Your task to perform on an android device: Search for "alienware aurora" on walmart, select the first entry, add it to the cart, then select checkout. Image 0: 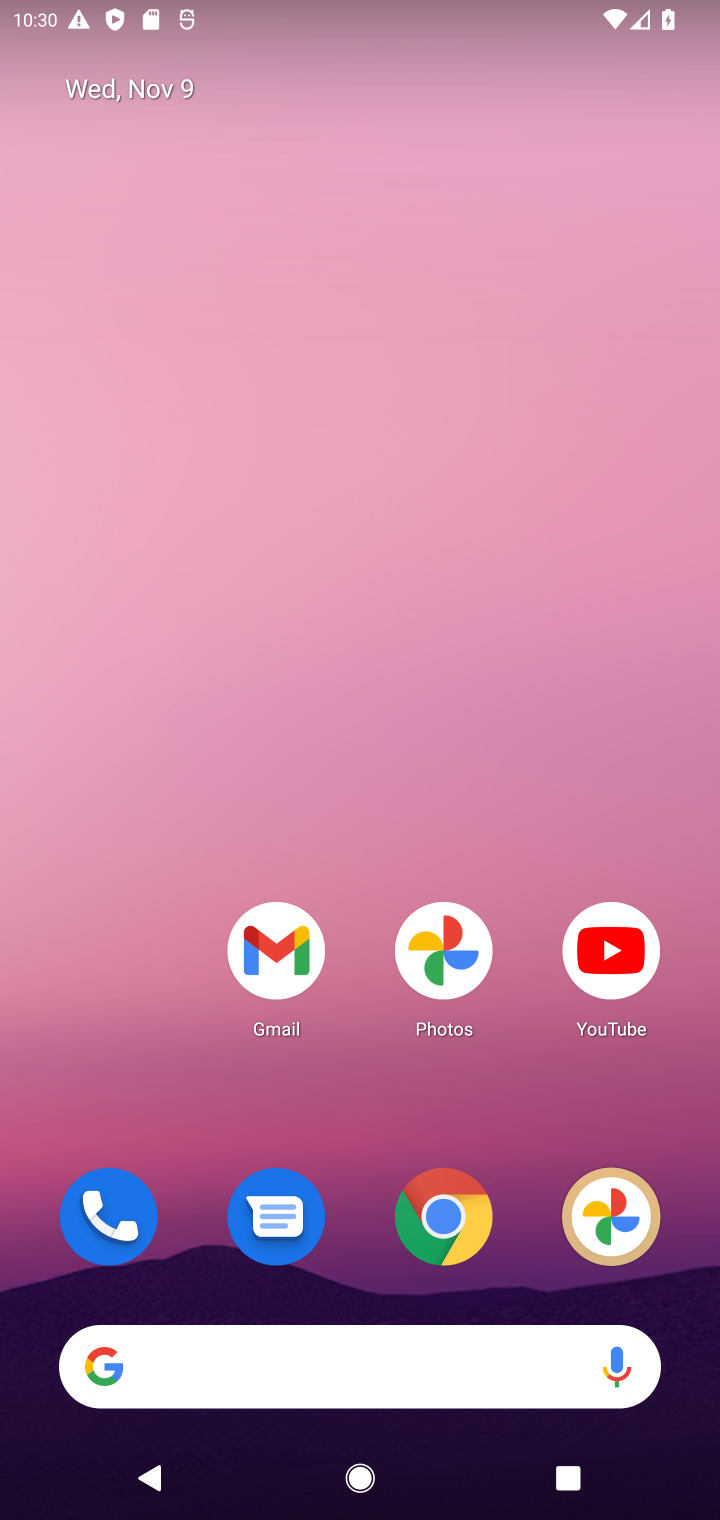
Step 0: drag from (374, 1056) to (505, 84)
Your task to perform on an android device: Search for "alienware aurora" on walmart, select the first entry, add it to the cart, then select checkout. Image 1: 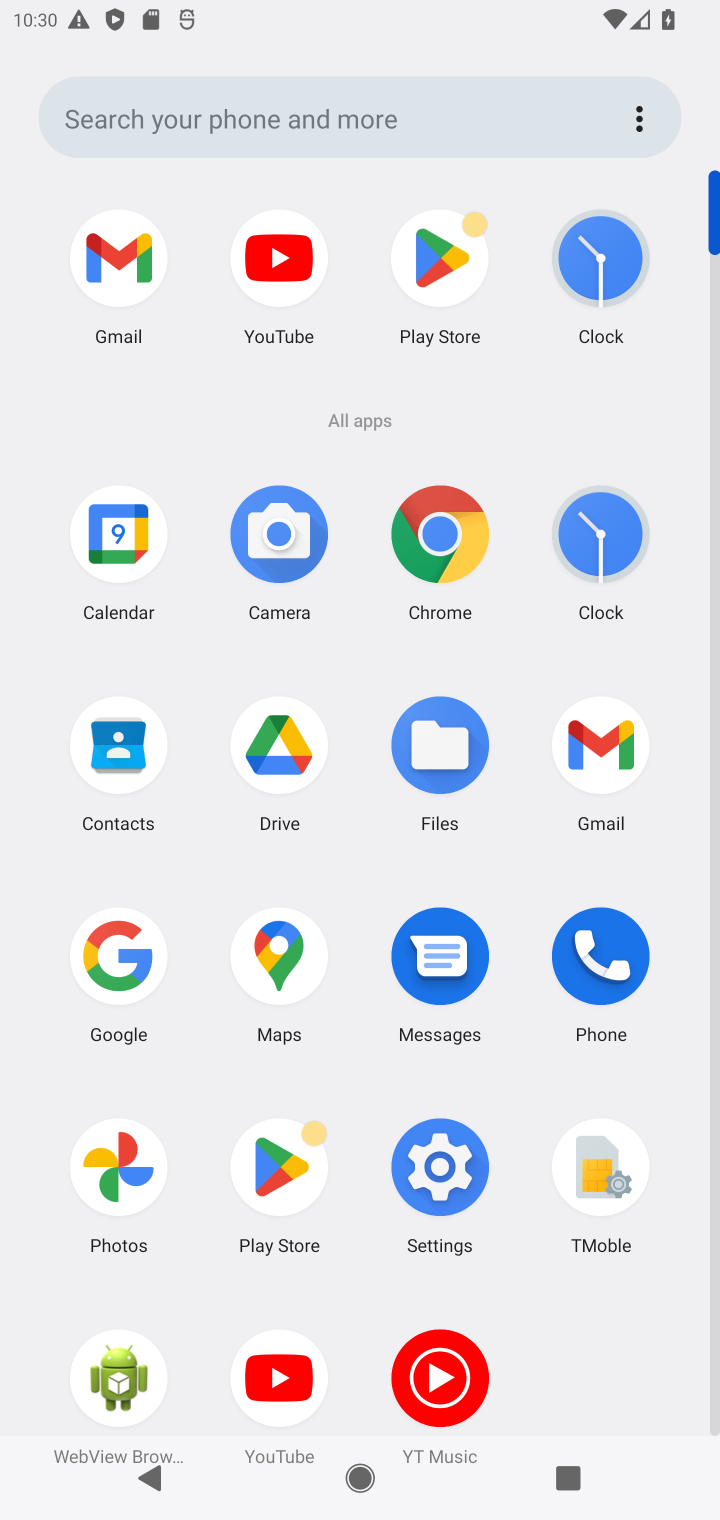
Step 1: click (449, 540)
Your task to perform on an android device: Search for "alienware aurora" on walmart, select the first entry, add it to the cart, then select checkout. Image 2: 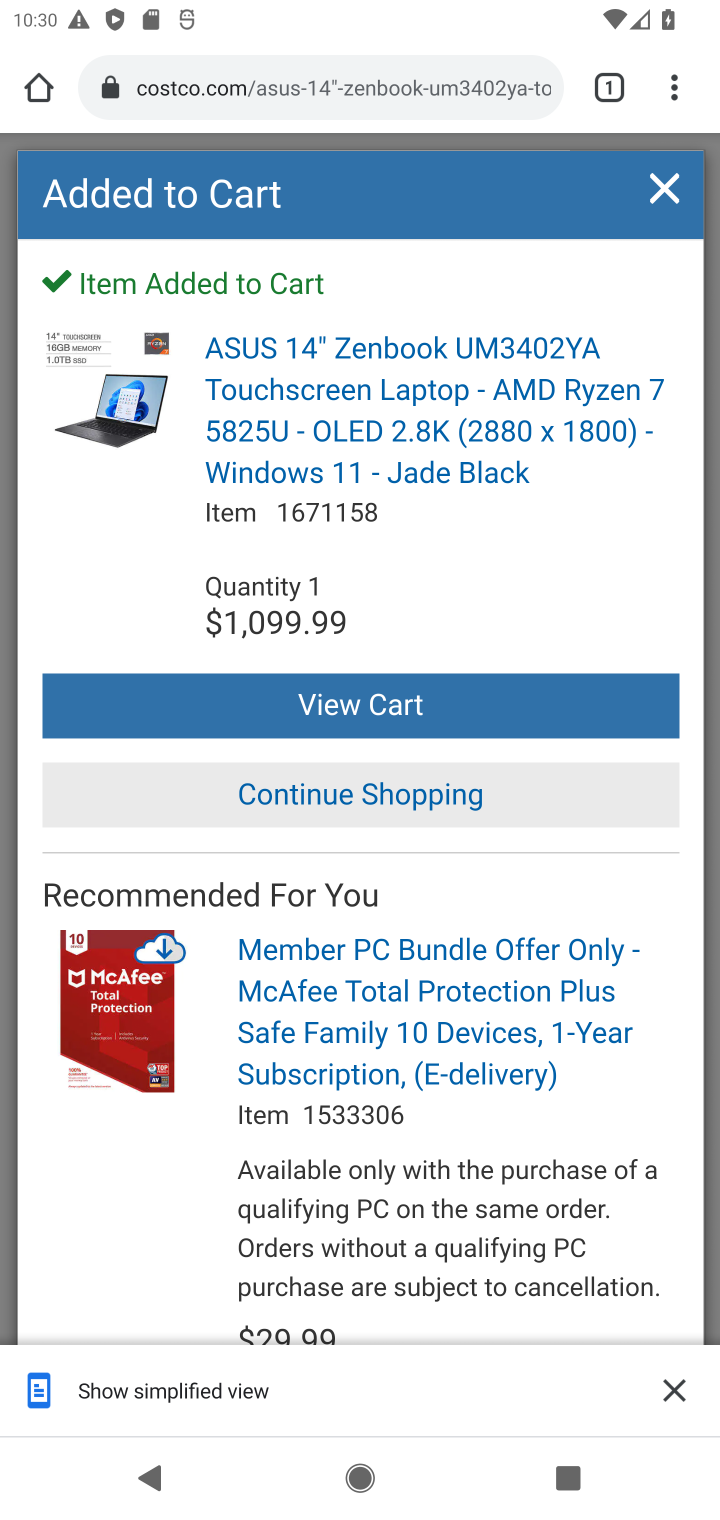
Step 2: click (281, 79)
Your task to perform on an android device: Search for "alienware aurora" on walmart, select the first entry, add it to the cart, then select checkout. Image 3: 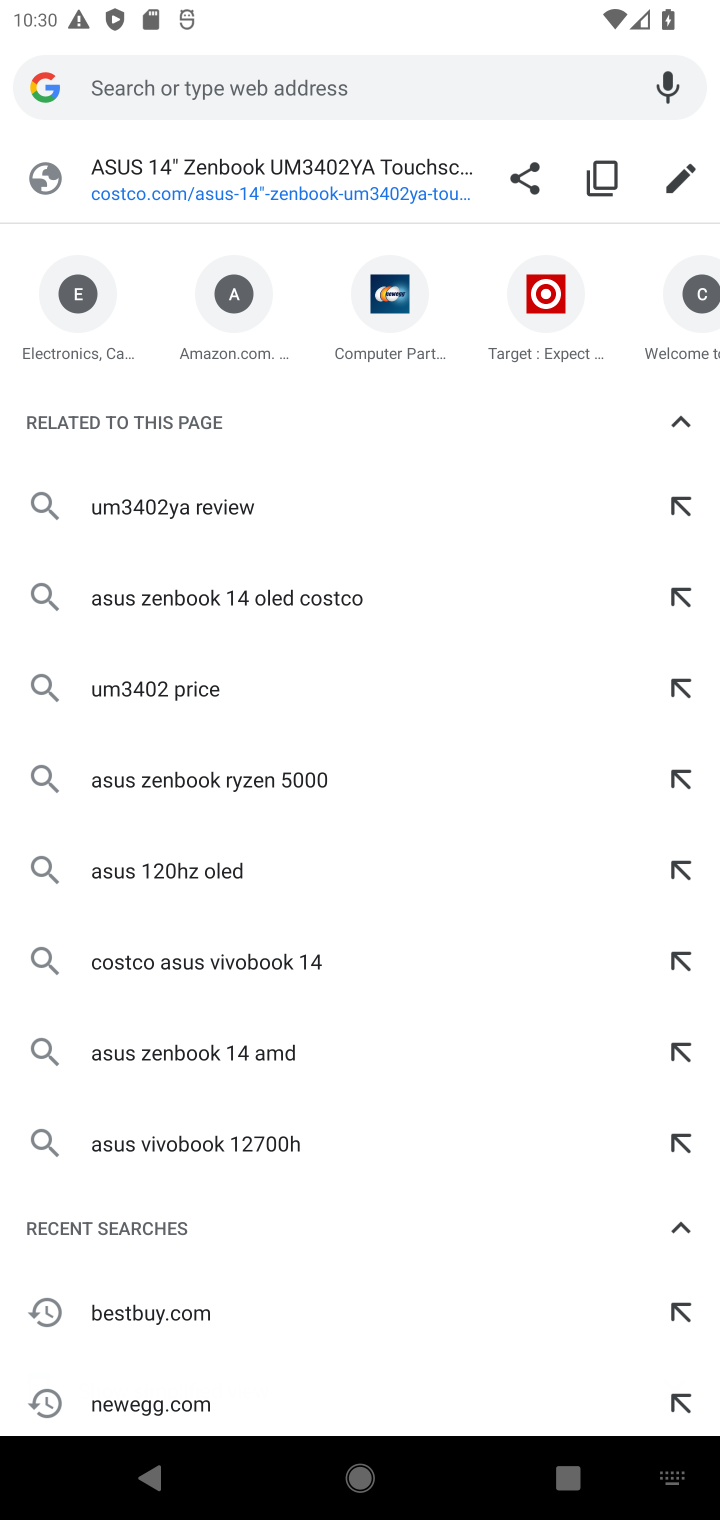
Step 3: type "walmart.com"
Your task to perform on an android device: Search for "alienware aurora" on walmart, select the first entry, add it to the cart, then select checkout. Image 4: 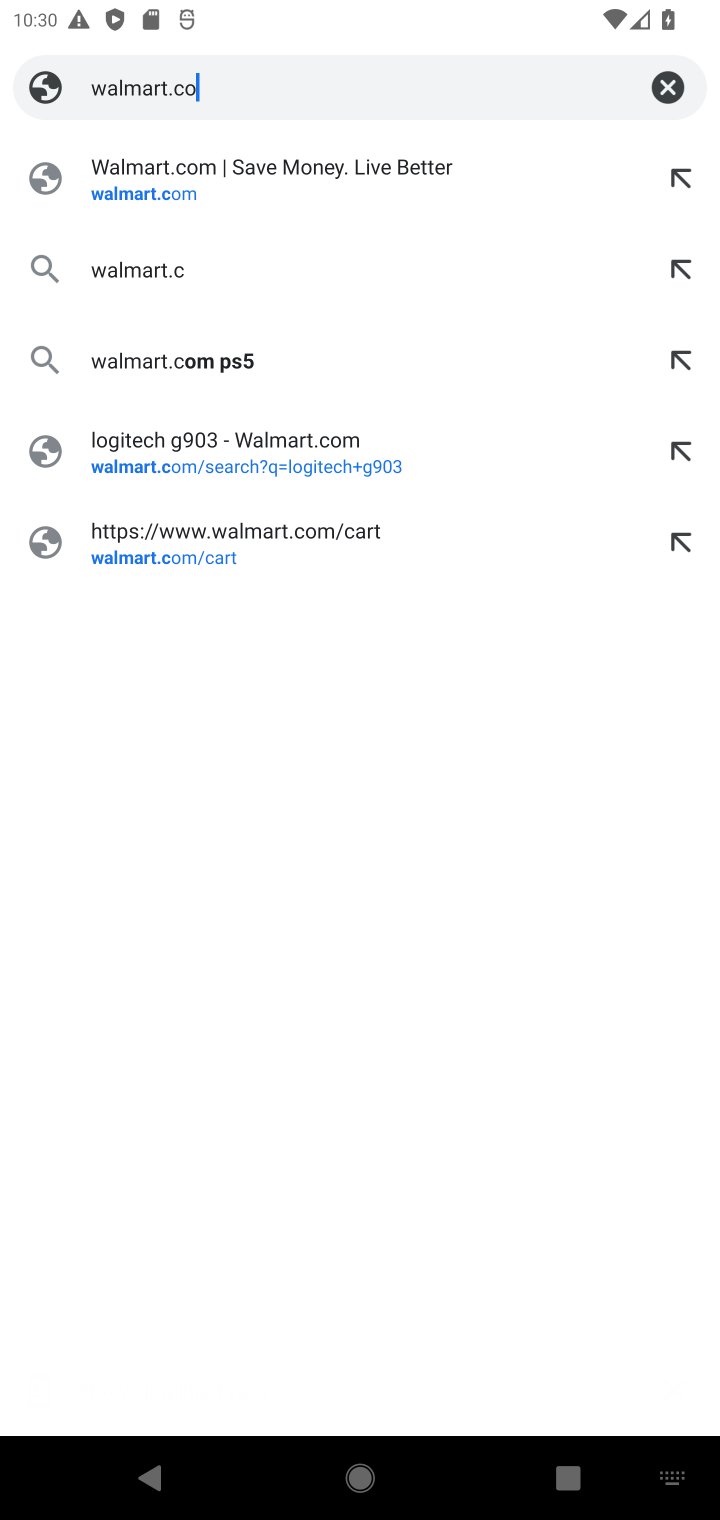
Step 4: press enter
Your task to perform on an android device: Search for "alienware aurora" on walmart, select the first entry, add it to the cart, then select checkout. Image 5: 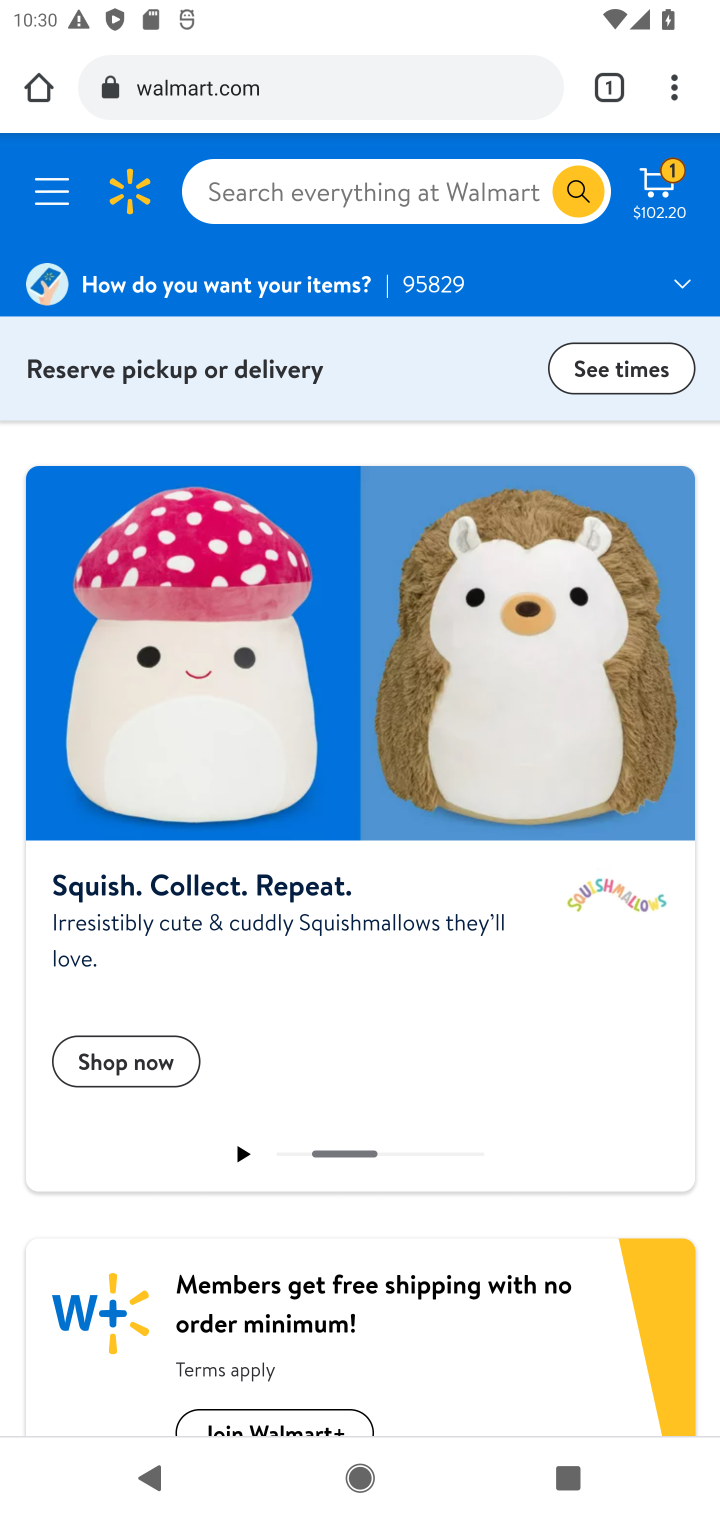
Step 5: click (379, 200)
Your task to perform on an android device: Search for "alienware aurora" on walmart, select the first entry, add it to the cart, then select checkout. Image 6: 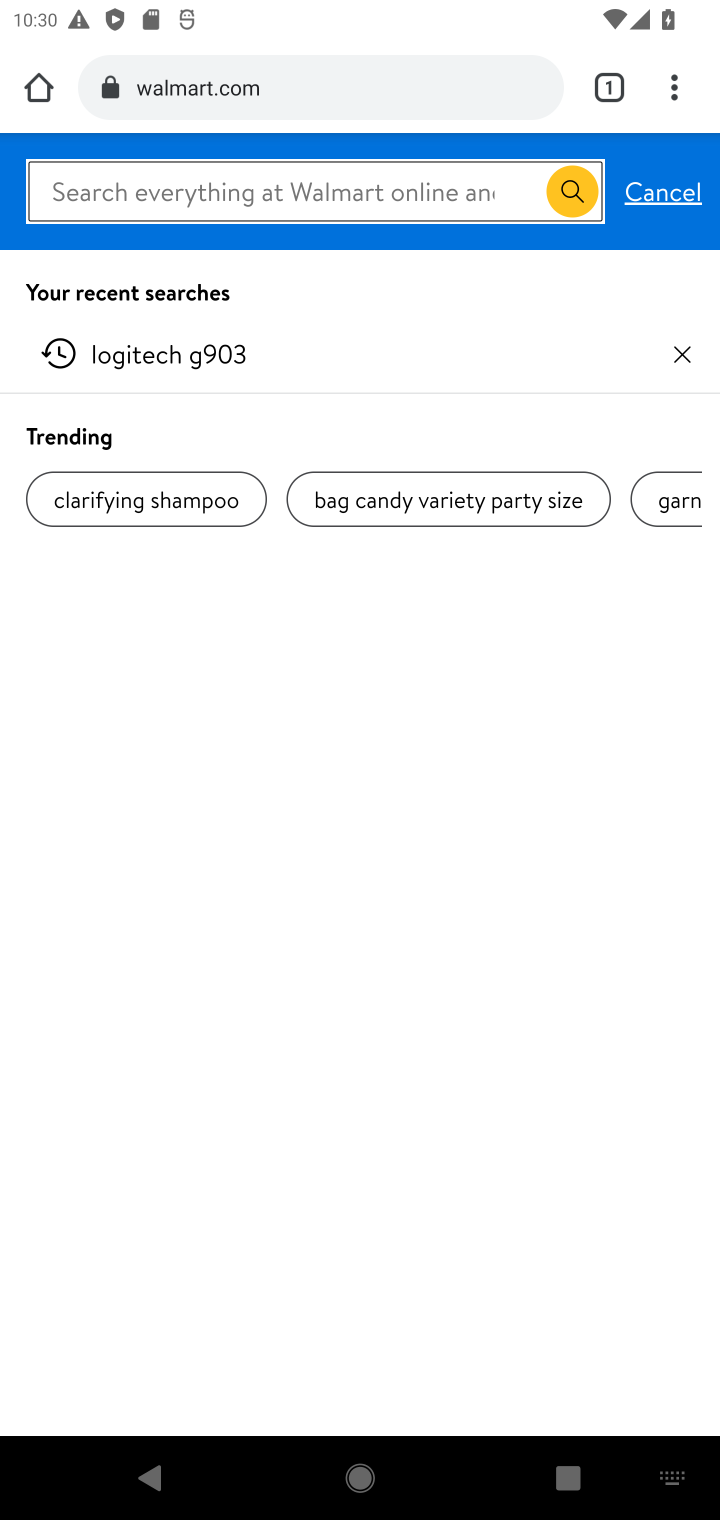
Step 6: type "alienware aurora"
Your task to perform on an android device: Search for "alienware aurora" on walmart, select the first entry, add it to the cart, then select checkout. Image 7: 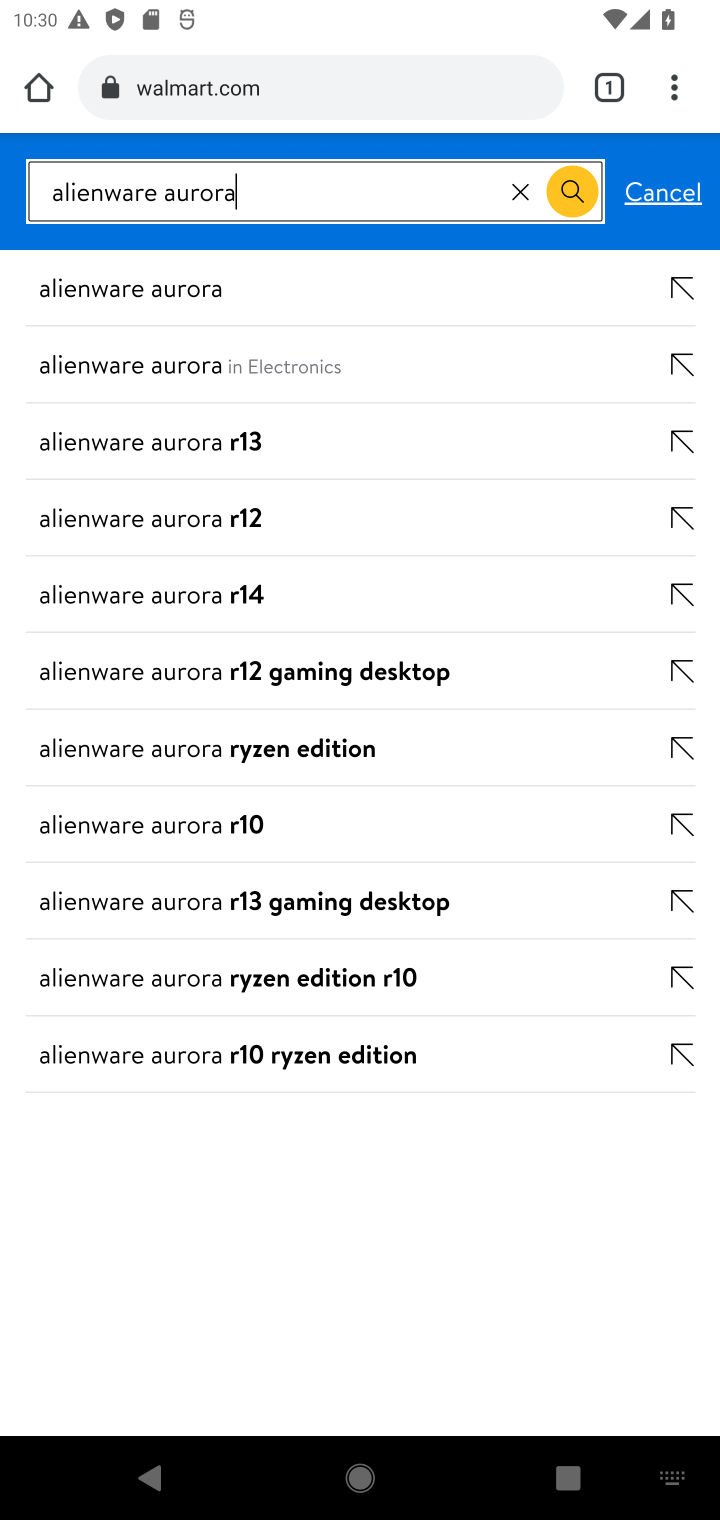
Step 7: press enter
Your task to perform on an android device: Search for "alienware aurora" on walmart, select the first entry, add it to the cart, then select checkout. Image 8: 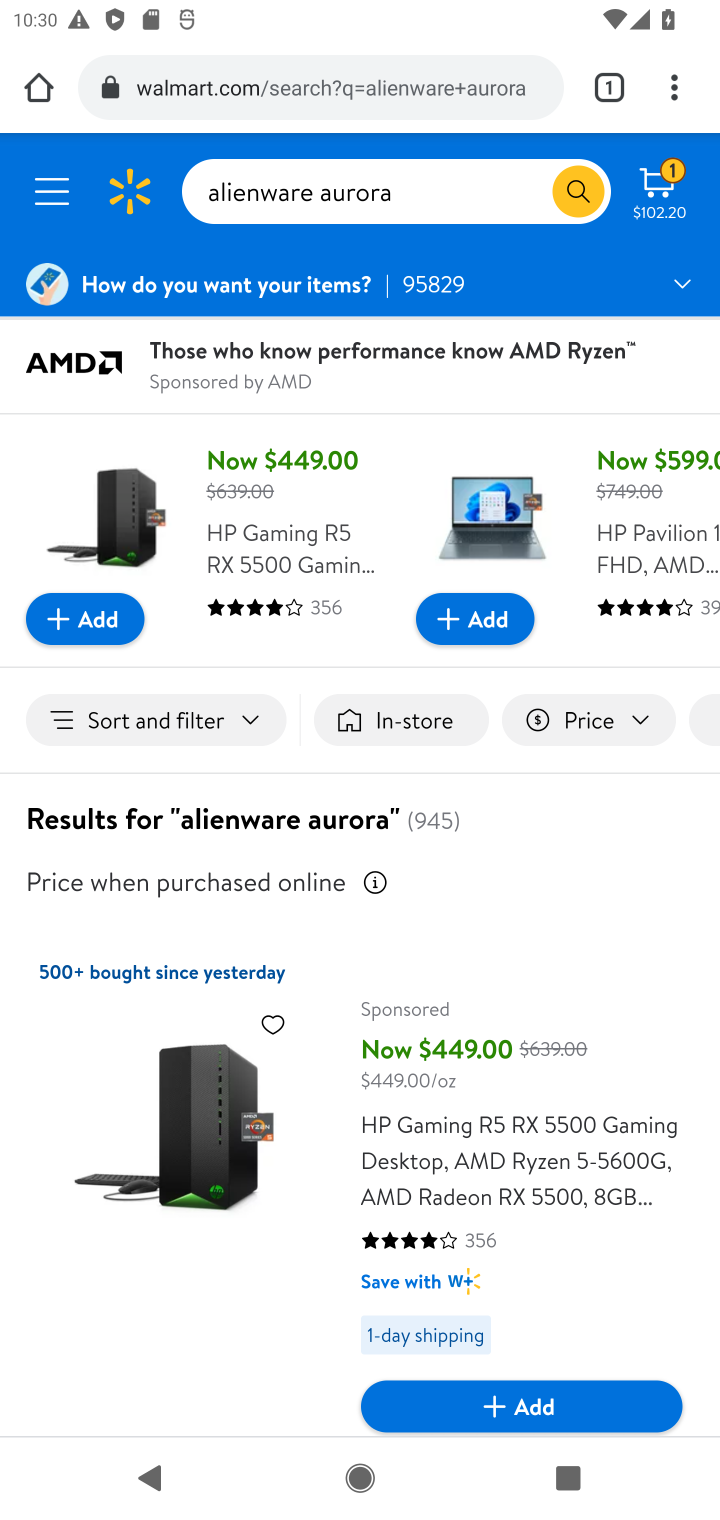
Step 8: drag from (508, 1198) to (490, 197)
Your task to perform on an android device: Search for "alienware aurora" on walmart, select the first entry, add it to the cart, then select checkout. Image 9: 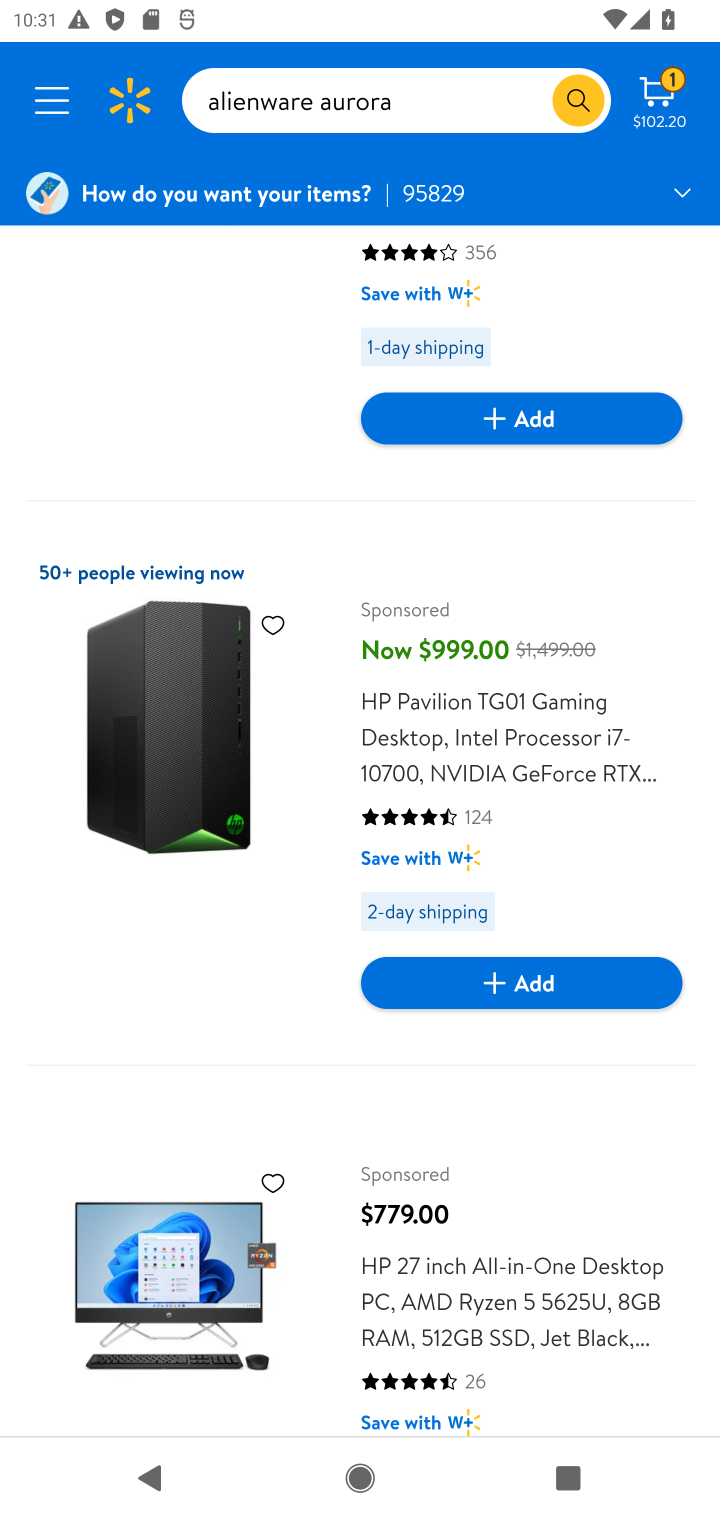
Step 9: drag from (311, 1387) to (236, 325)
Your task to perform on an android device: Search for "alienware aurora" on walmart, select the first entry, add it to the cart, then select checkout. Image 10: 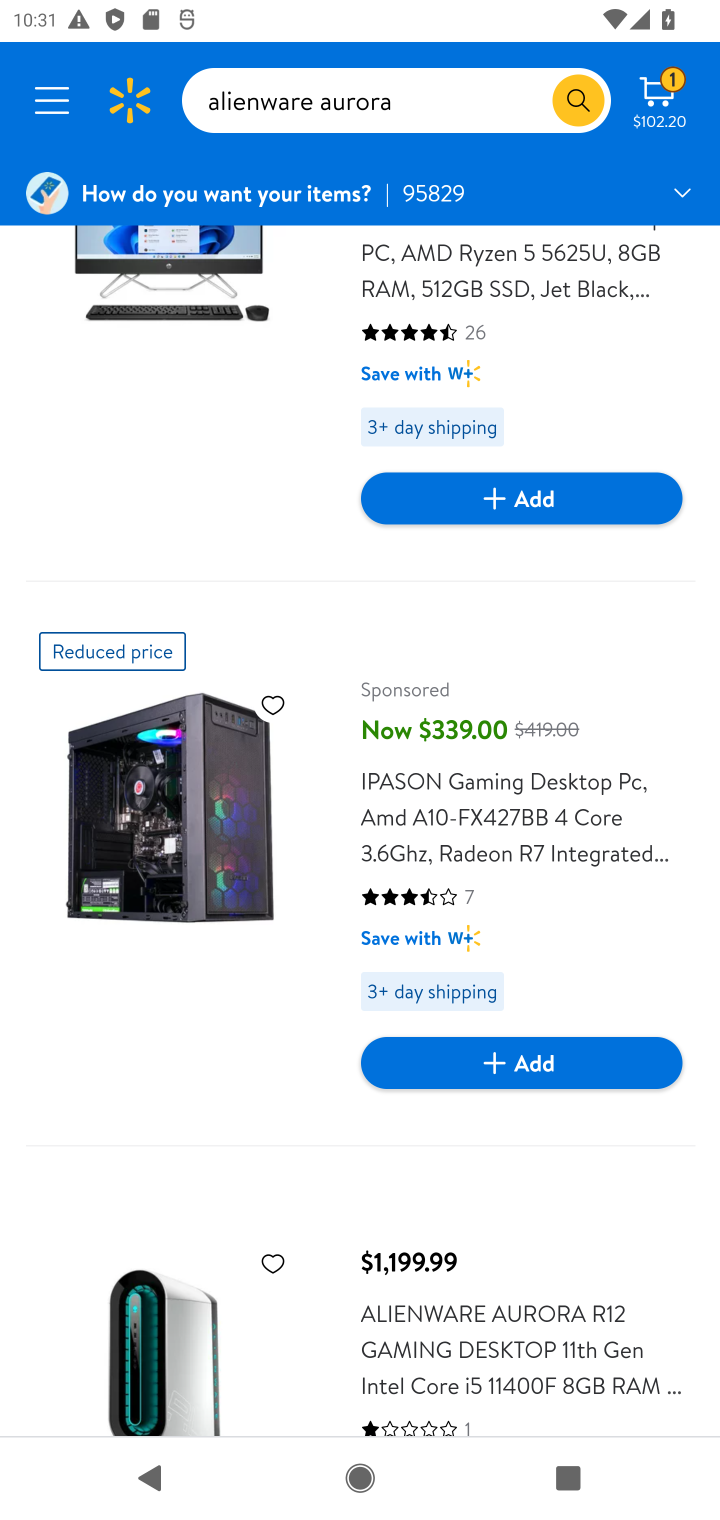
Step 10: drag from (502, 1245) to (569, 680)
Your task to perform on an android device: Search for "alienware aurora" on walmart, select the first entry, add it to the cart, then select checkout. Image 11: 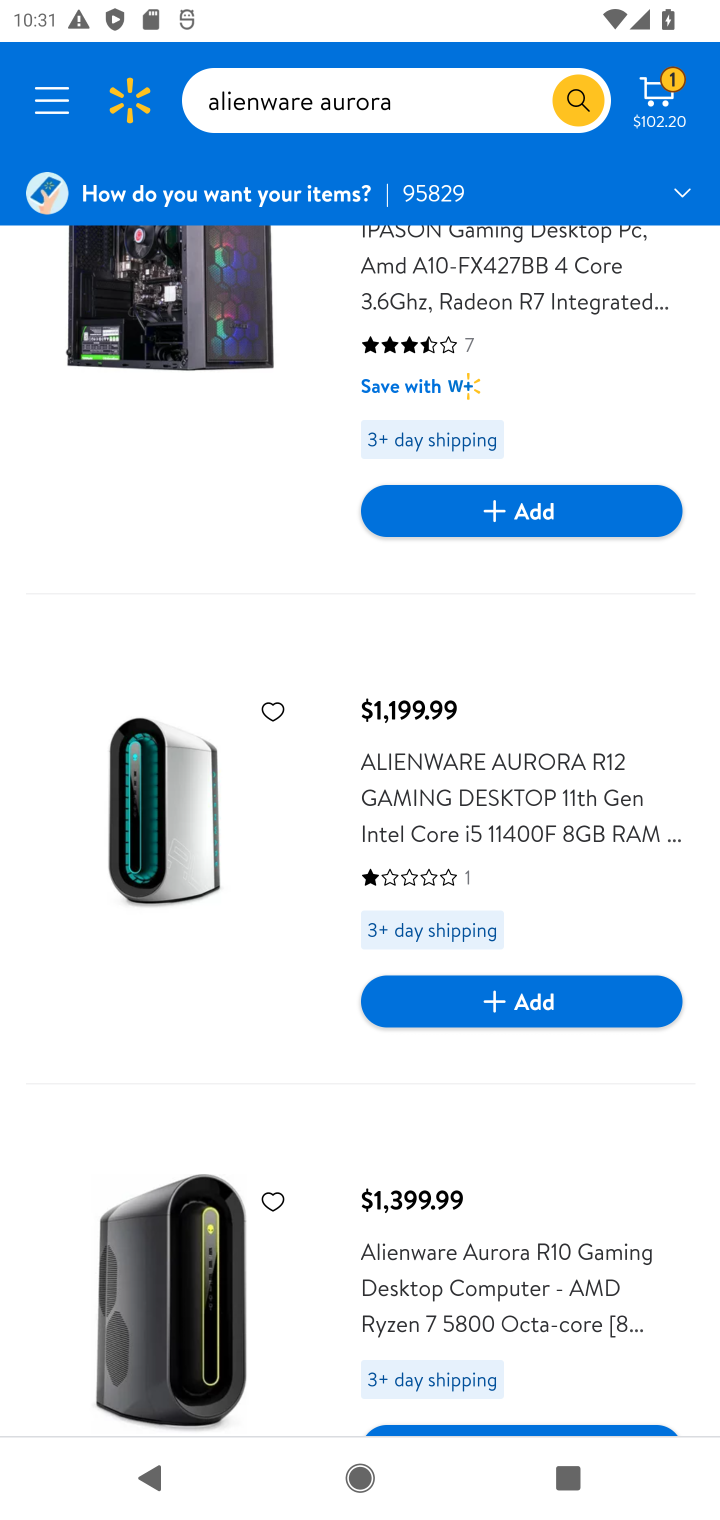
Step 11: click (528, 1017)
Your task to perform on an android device: Search for "alienware aurora" on walmart, select the first entry, add it to the cart, then select checkout. Image 12: 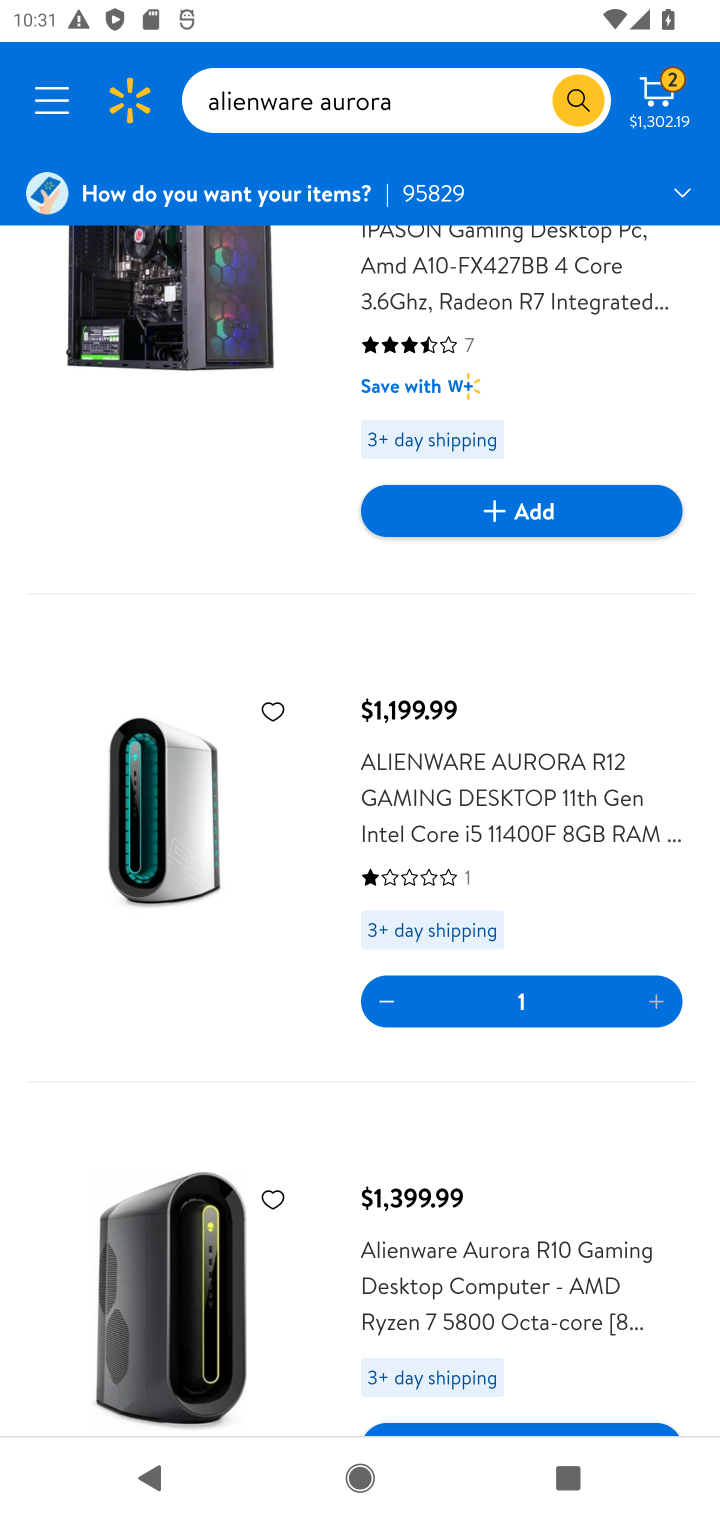
Step 12: click (523, 848)
Your task to perform on an android device: Search for "alienware aurora" on walmart, select the first entry, add it to the cart, then select checkout. Image 13: 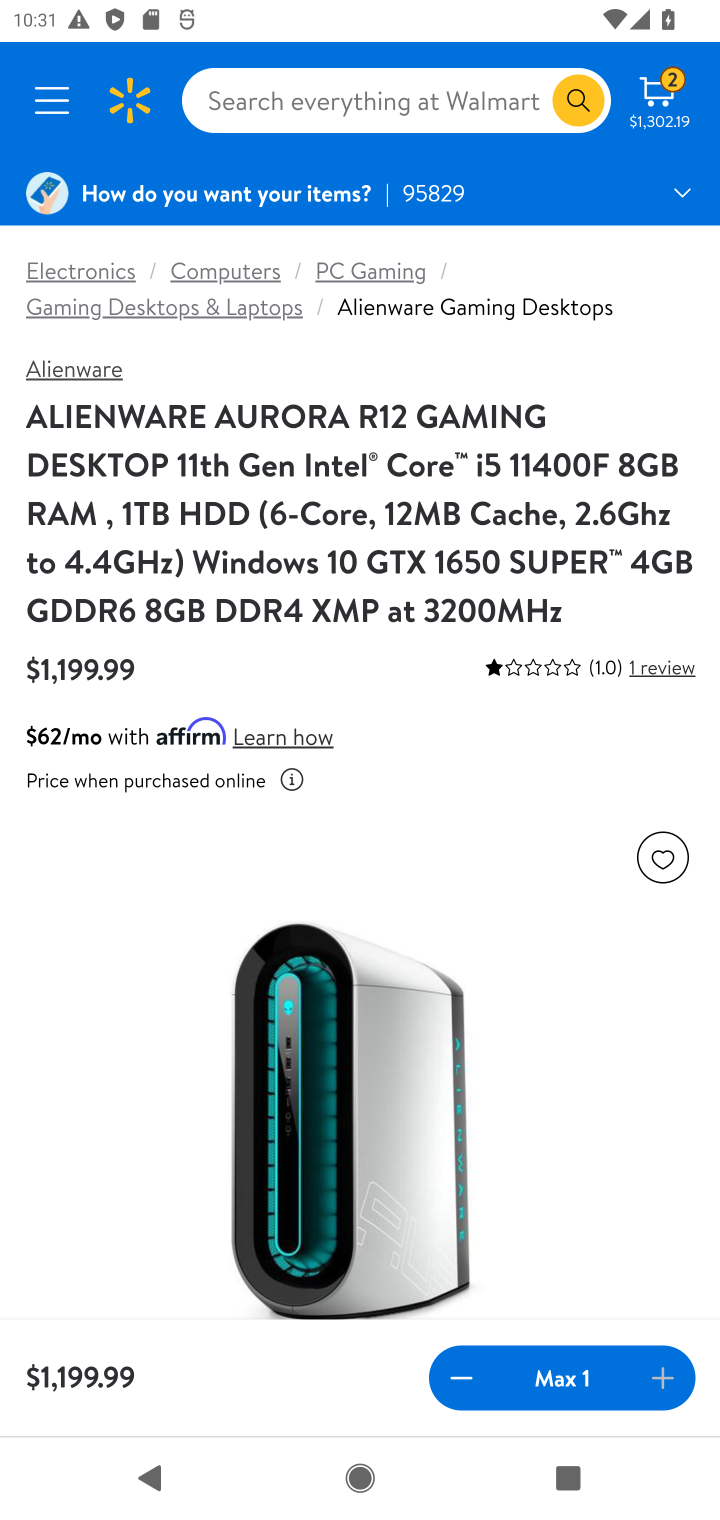
Step 13: drag from (527, 1110) to (538, 538)
Your task to perform on an android device: Search for "alienware aurora" on walmart, select the first entry, add it to the cart, then select checkout. Image 14: 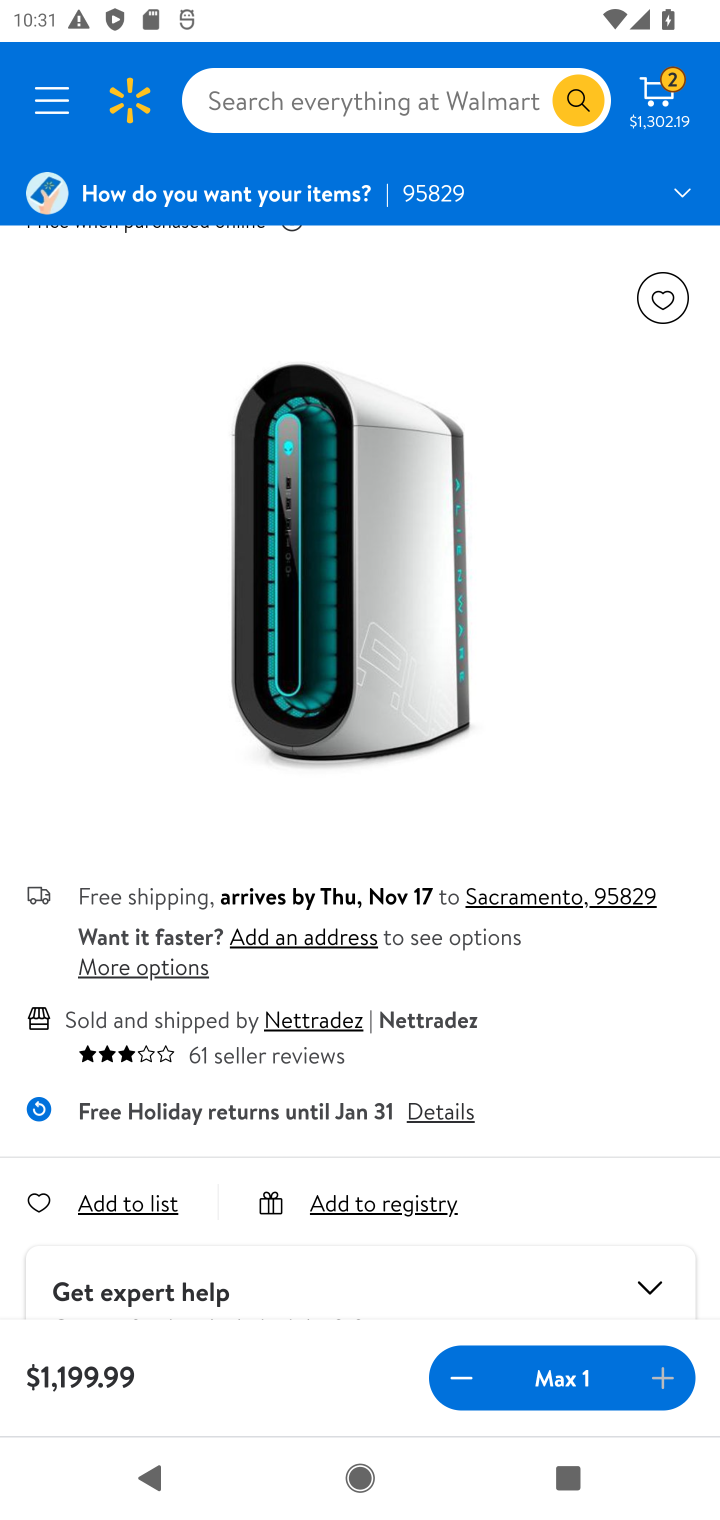
Step 14: drag from (482, 1049) to (503, 489)
Your task to perform on an android device: Search for "alienware aurora" on walmart, select the first entry, add it to the cart, then select checkout. Image 15: 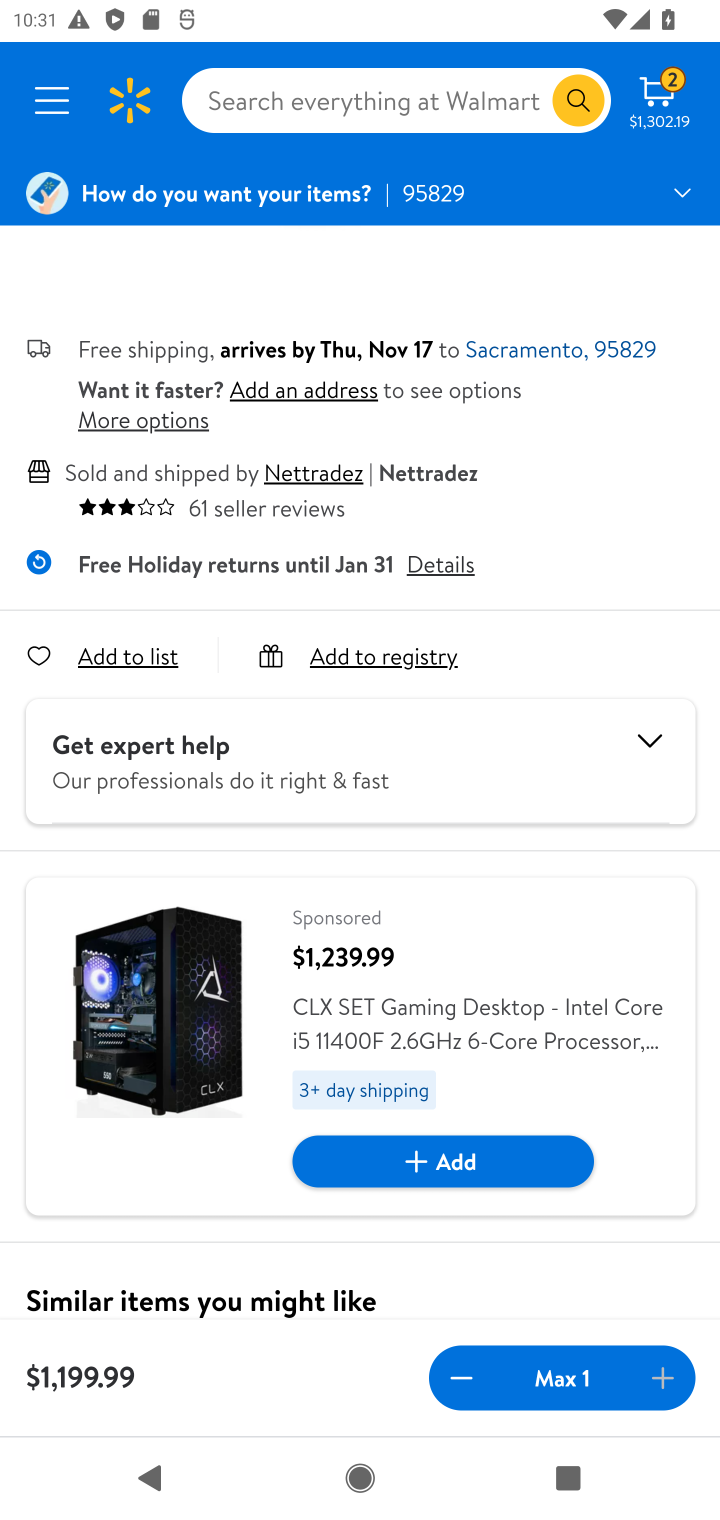
Step 15: click (653, 94)
Your task to perform on an android device: Search for "alienware aurora" on walmart, select the first entry, add it to the cart, then select checkout. Image 16: 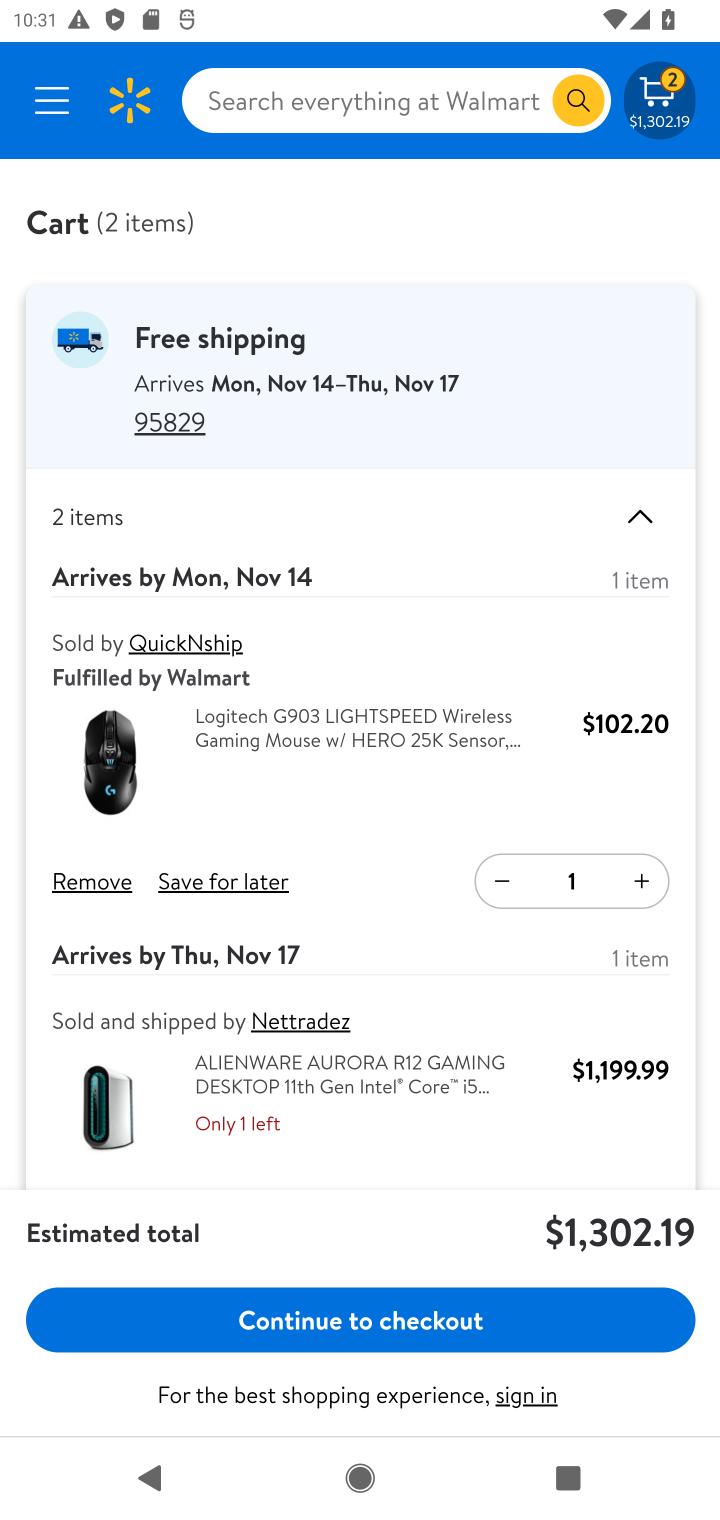
Step 16: click (384, 1314)
Your task to perform on an android device: Search for "alienware aurora" on walmart, select the first entry, add it to the cart, then select checkout. Image 17: 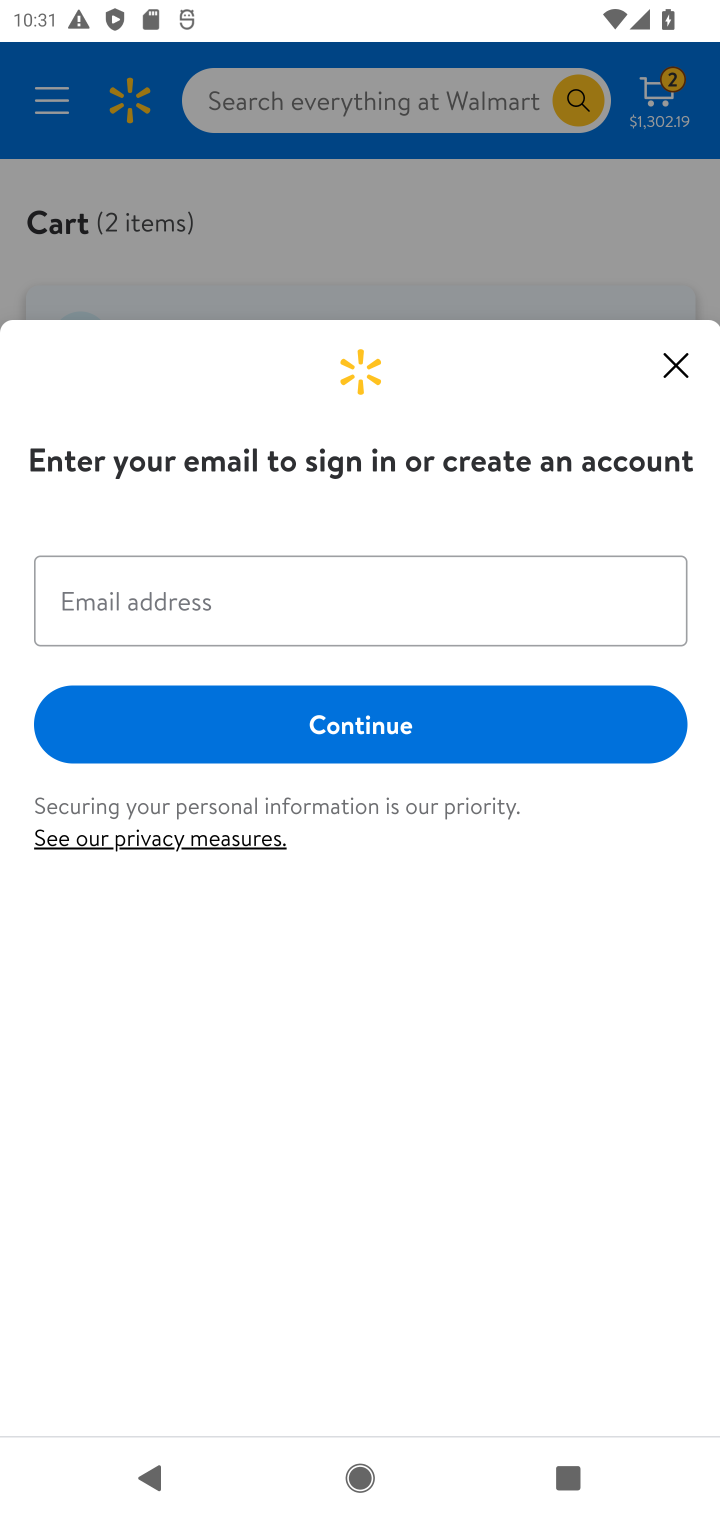
Step 17: task complete